Your task to perform on an android device: Go to settings Image 0: 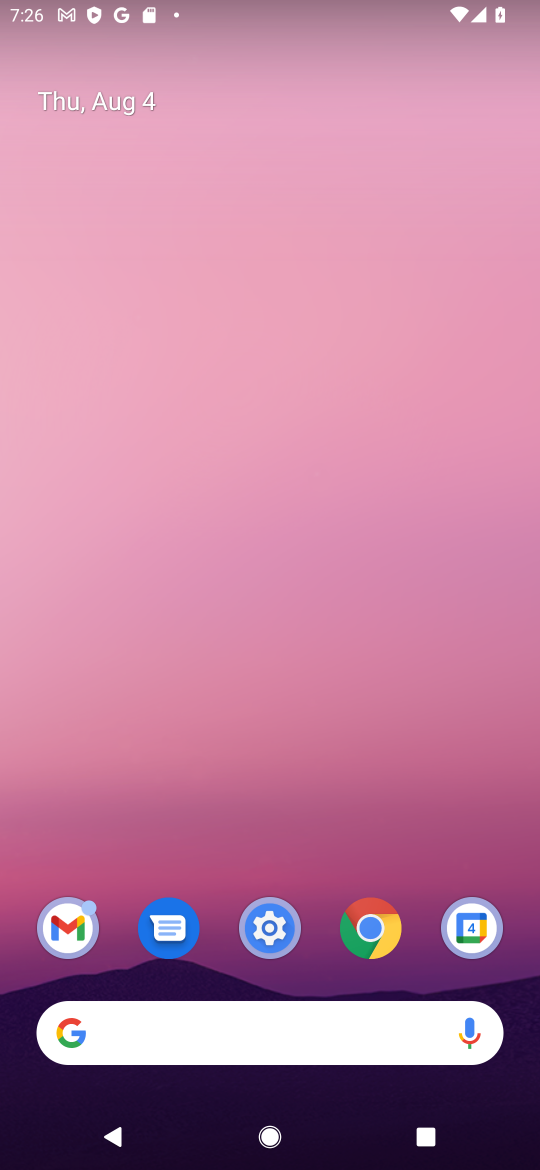
Step 0: click (268, 932)
Your task to perform on an android device: Go to settings Image 1: 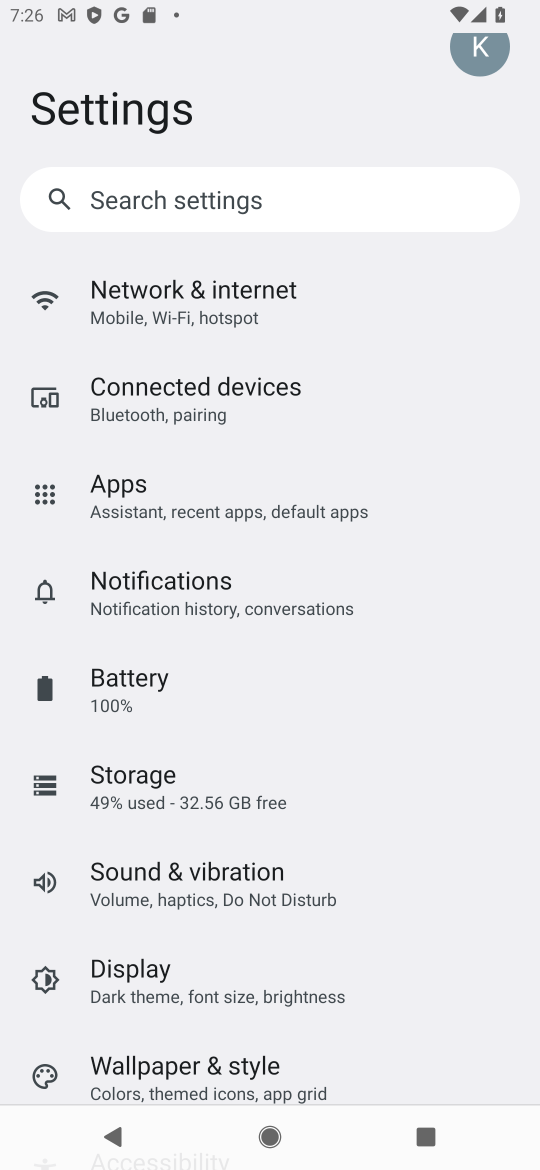
Step 1: task complete